Your task to perform on an android device: turn pop-ups off in chrome Image 0: 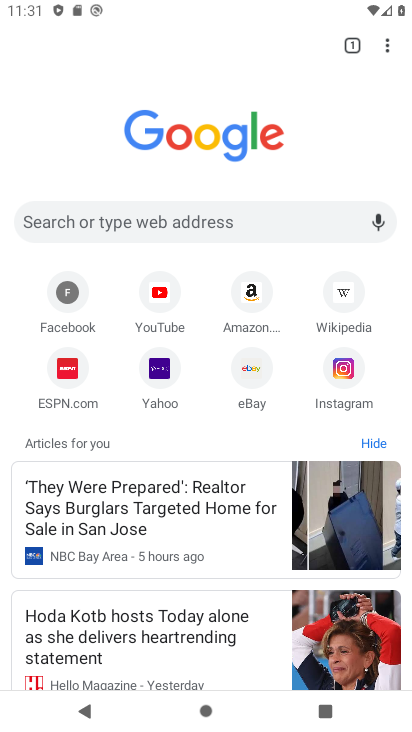
Step 0: press home button
Your task to perform on an android device: turn pop-ups off in chrome Image 1: 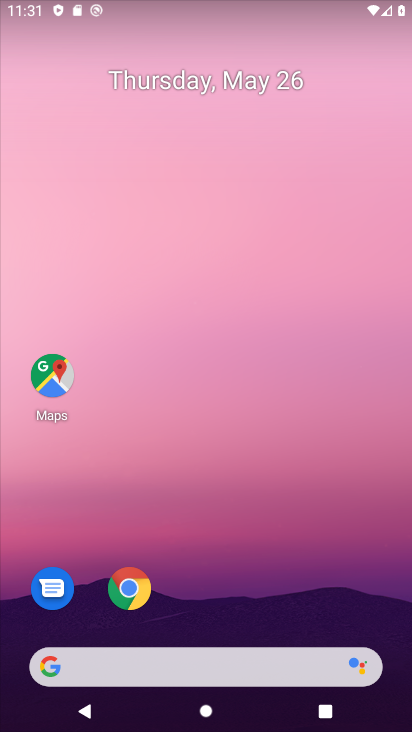
Step 1: click (142, 592)
Your task to perform on an android device: turn pop-ups off in chrome Image 2: 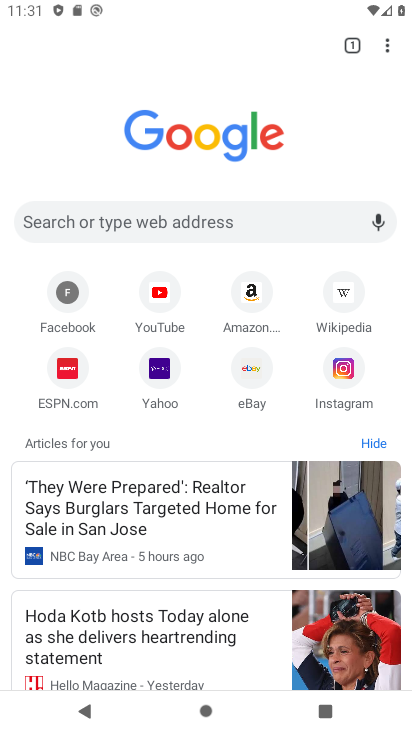
Step 2: click (388, 45)
Your task to perform on an android device: turn pop-ups off in chrome Image 3: 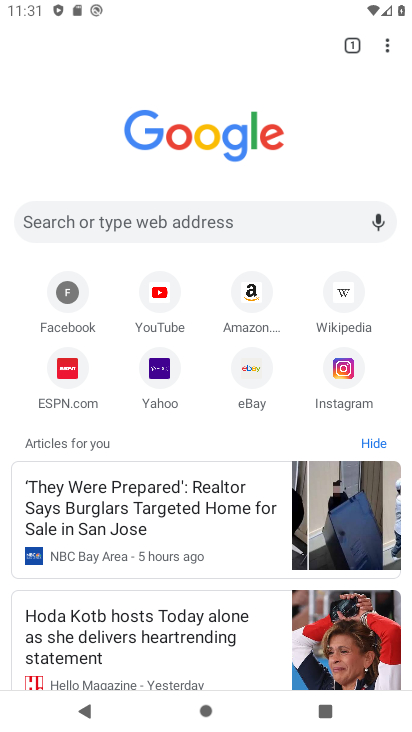
Step 3: drag from (394, 45) to (243, 389)
Your task to perform on an android device: turn pop-ups off in chrome Image 4: 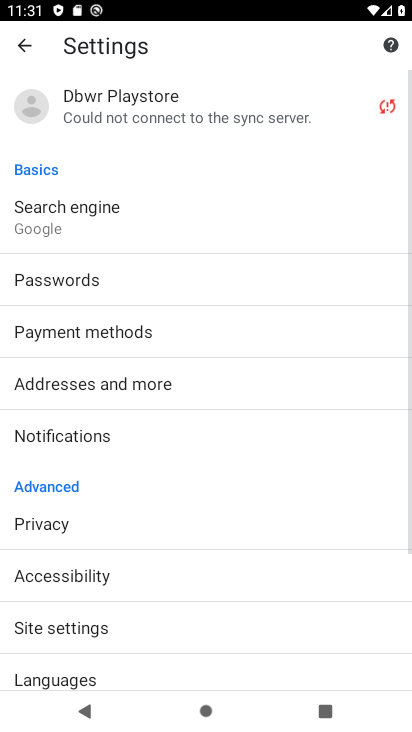
Step 4: click (64, 633)
Your task to perform on an android device: turn pop-ups off in chrome Image 5: 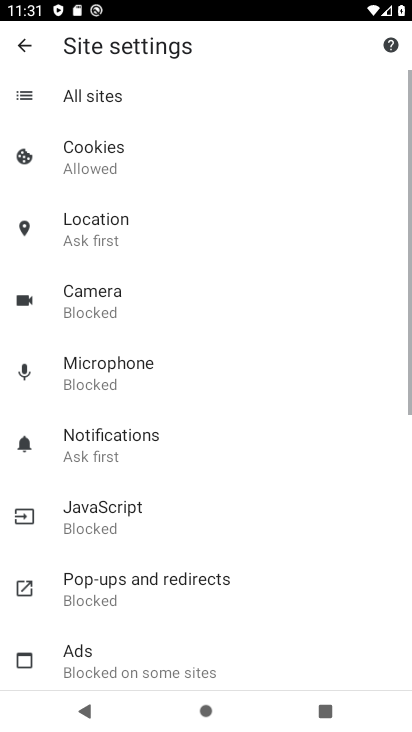
Step 5: click (117, 581)
Your task to perform on an android device: turn pop-ups off in chrome Image 6: 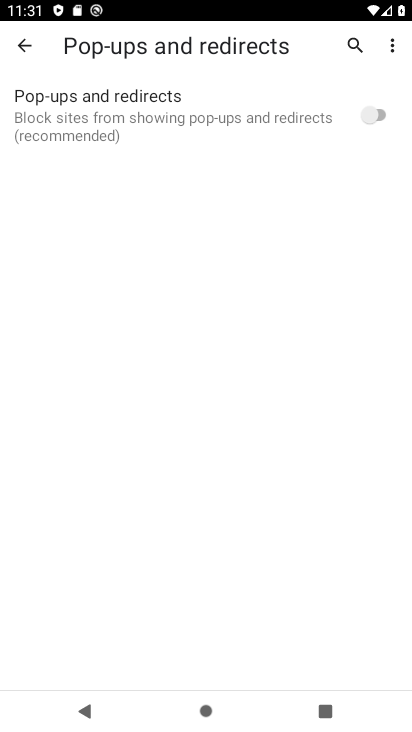
Step 6: click (367, 104)
Your task to perform on an android device: turn pop-ups off in chrome Image 7: 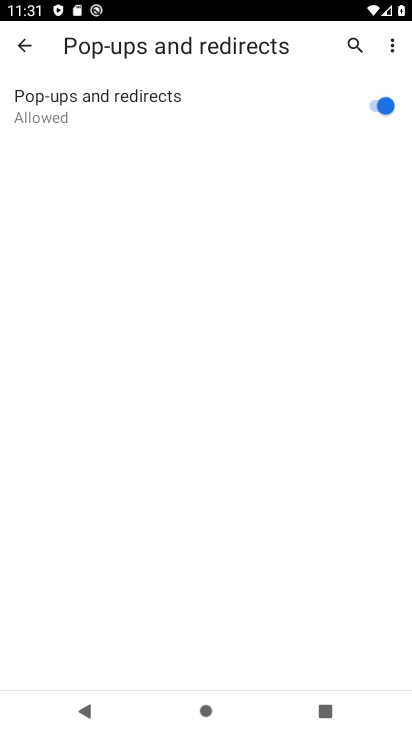
Step 7: click (367, 108)
Your task to perform on an android device: turn pop-ups off in chrome Image 8: 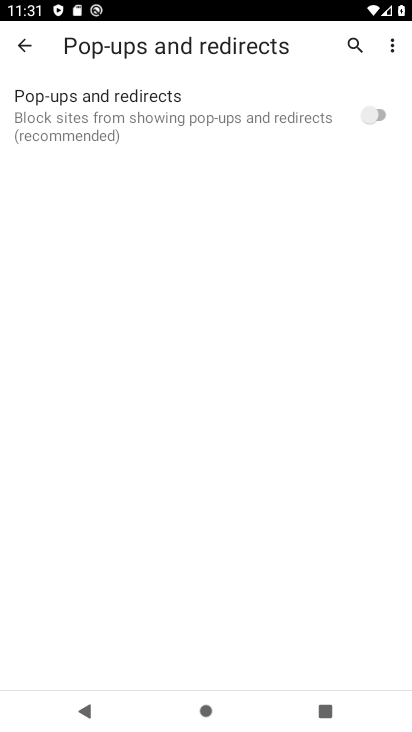
Step 8: task complete